Your task to perform on an android device: Open notification settings Image 0: 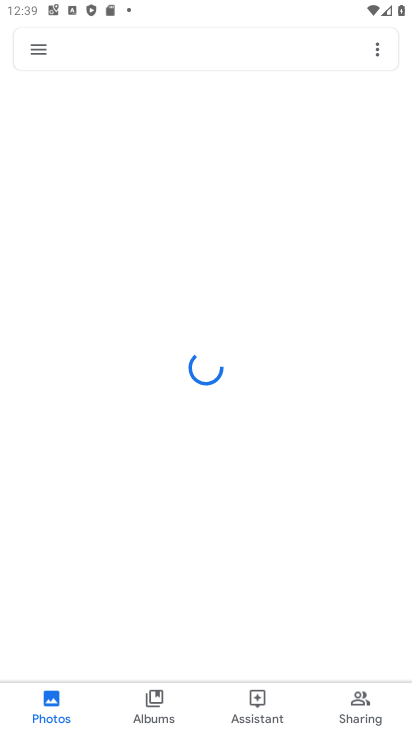
Step 0: press home button
Your task to perform on an android device: Open notification settings Image 1: 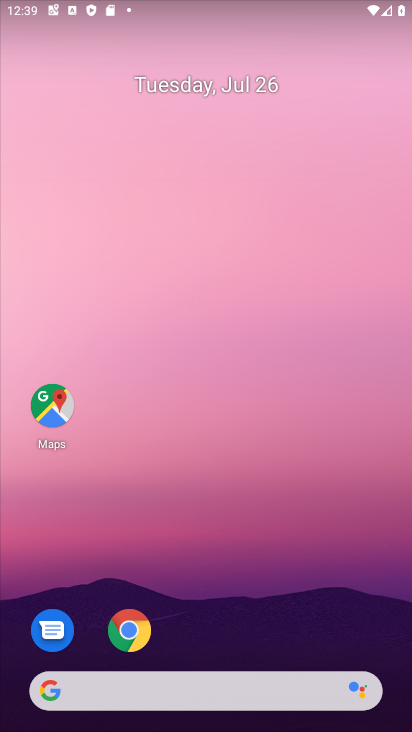
Step 1: drag from (345, 608) to (318, 160)
Your task to perform on an android device: Open notification settings Image 2: 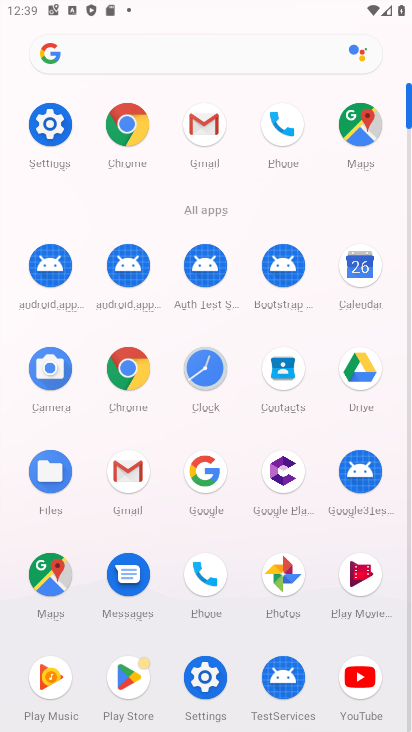
Step 2: click (205, 677)
Your task to perform on an android device: Open notification settings Image 3: 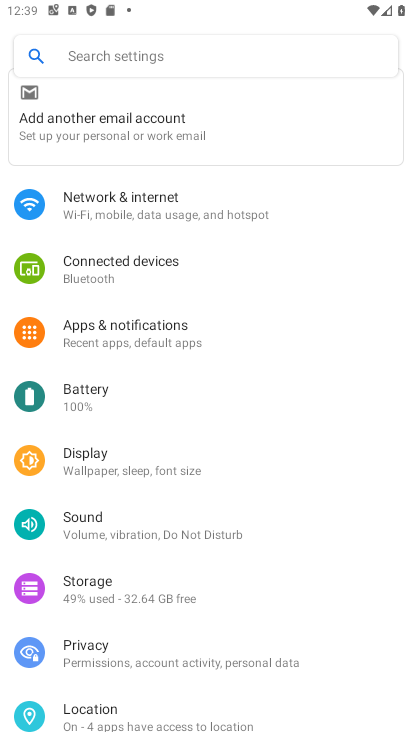
Step 3: click (135, 338)
Your task to perform on an android device: Open notification settings Image 4: 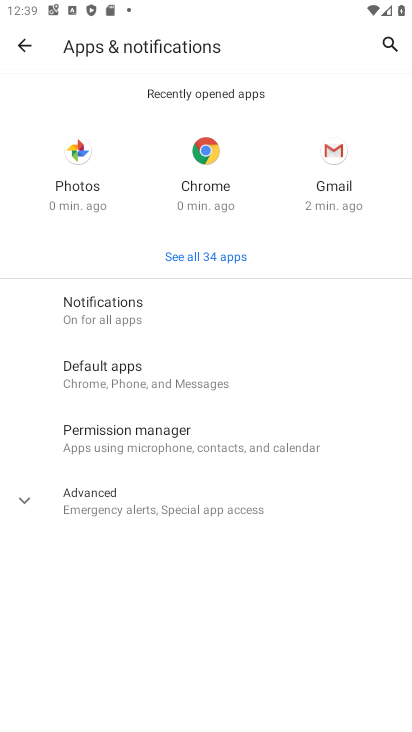
Step 4: click (105, 307)
Your task to perform on an android device: Open notification settings Image 5: 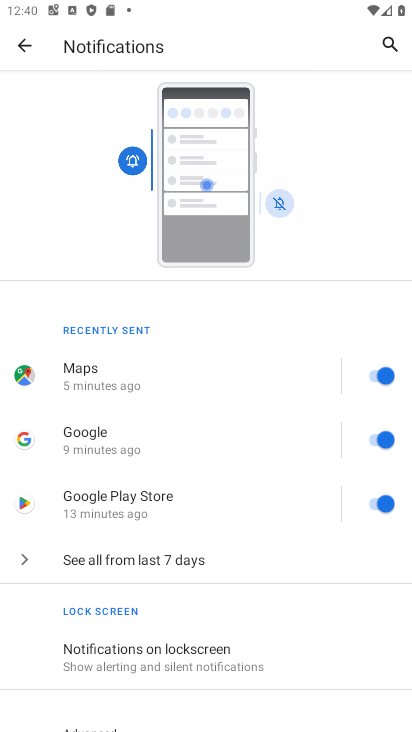
Step 5: task complete